Your task to perform on an android device: Search for Mexican restaurants on Maps Image 0: 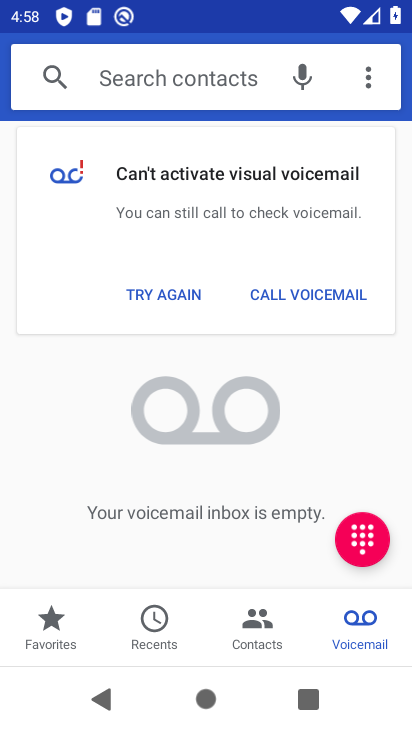
Step 0: press home button
Your task to perform on an android device: Search for Mexican restaurants on Maps Image 1: 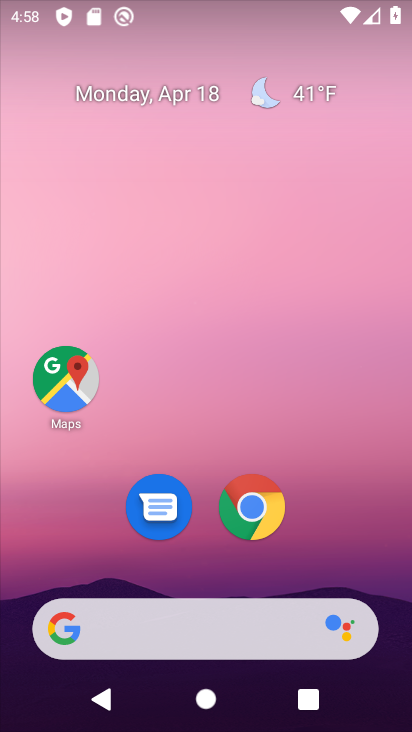
Step 1: drag from (247, 536) to (297, 16)
Your task to perform on an android device: Search for Mexican restaurants on Maps Image 2: 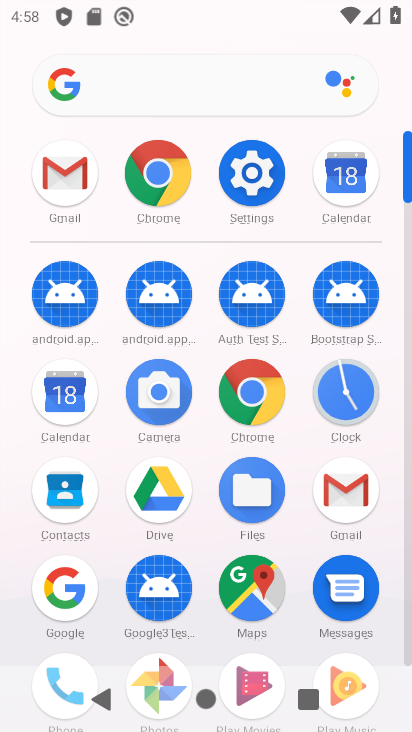
Step 2: drag from (233, 545) to (273, 121)
Your task to perform on an android device: Search for Mexican restaurants on Maps Image 3: 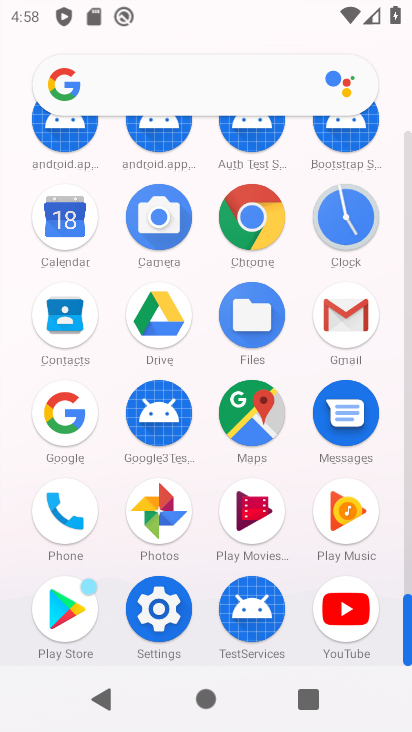
Step 3: click (253, 410)
Your task to perform on an android device: Search for Mexican restaurants on Maps Image 4: 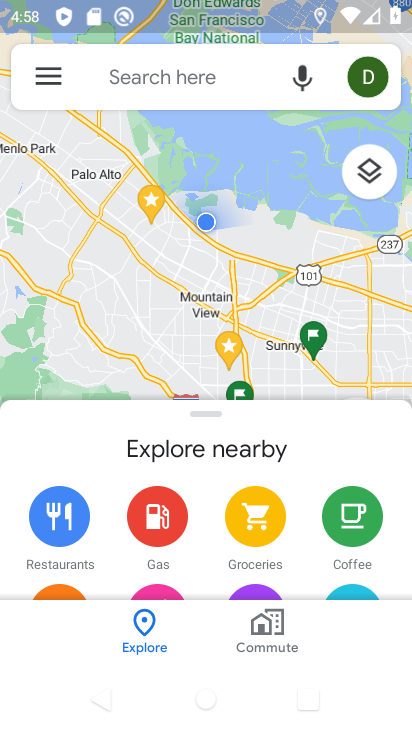
Step 4: click (207, 81)
Your task to perform on an android device: Search for Mexican restaurants on Maps Image 5: 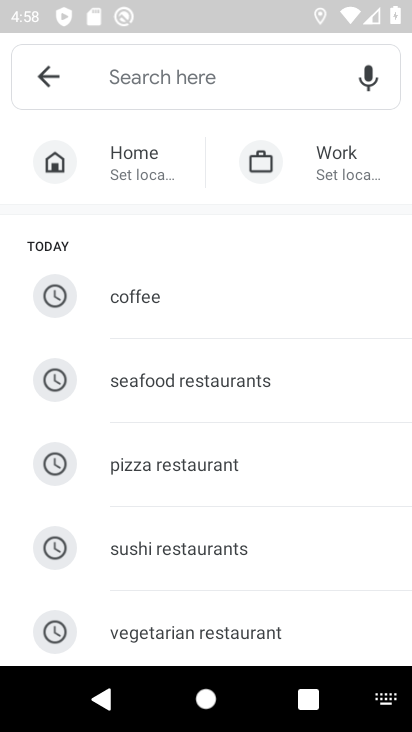
Step 5: type "mexican restaurant"
Your task to perform on an android device: Search for Mexican restaurants on Maps Image 6: 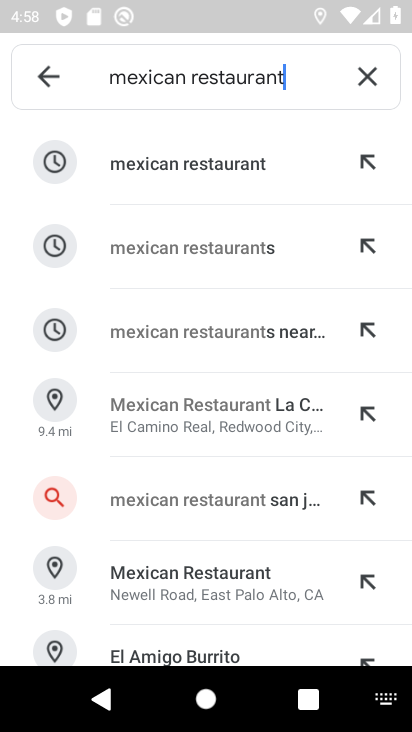
Step 6: click (268, 164)
Your task to perform on an android device: Search for Mexican restaurants on Maps Image 7: 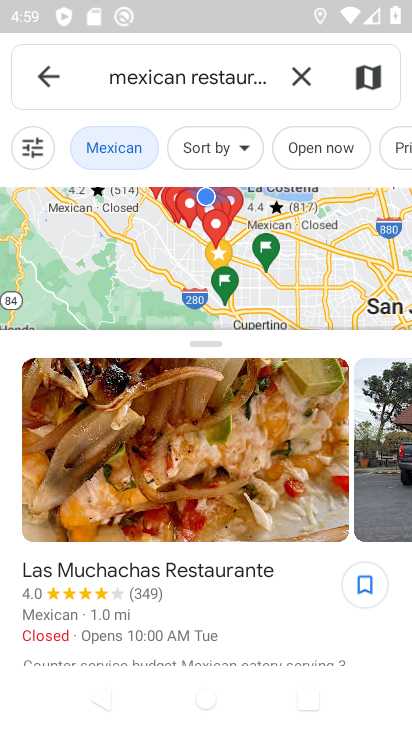
Step 7: task complete